Your task to perform on an android device: Open the Play Movies app and select the watchlist tab. Image 0: 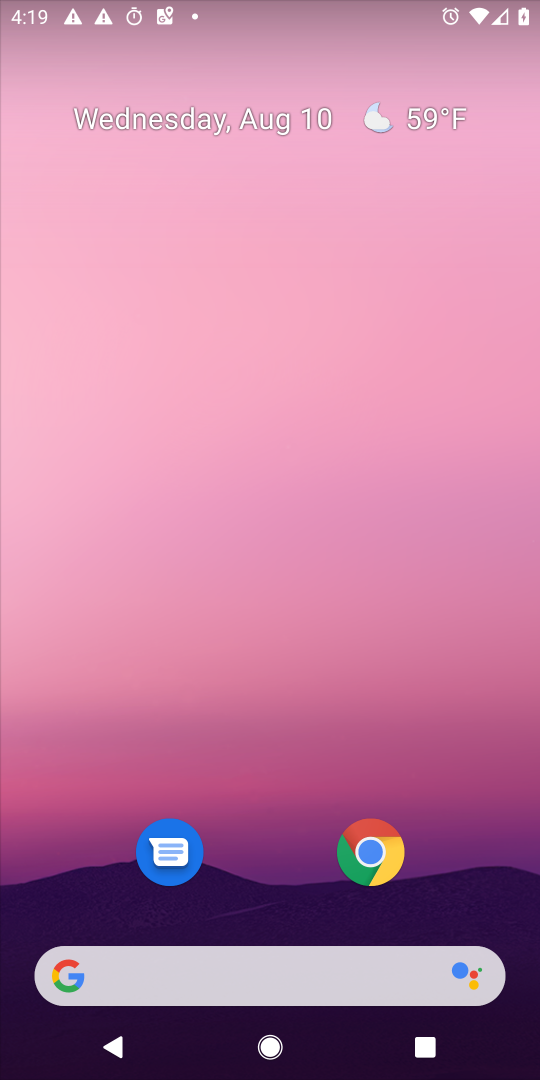
Step 0: click (271, 863)
Your task to perform on an android device: Open the Play Movies app and select the watchlist tab. Image 1: 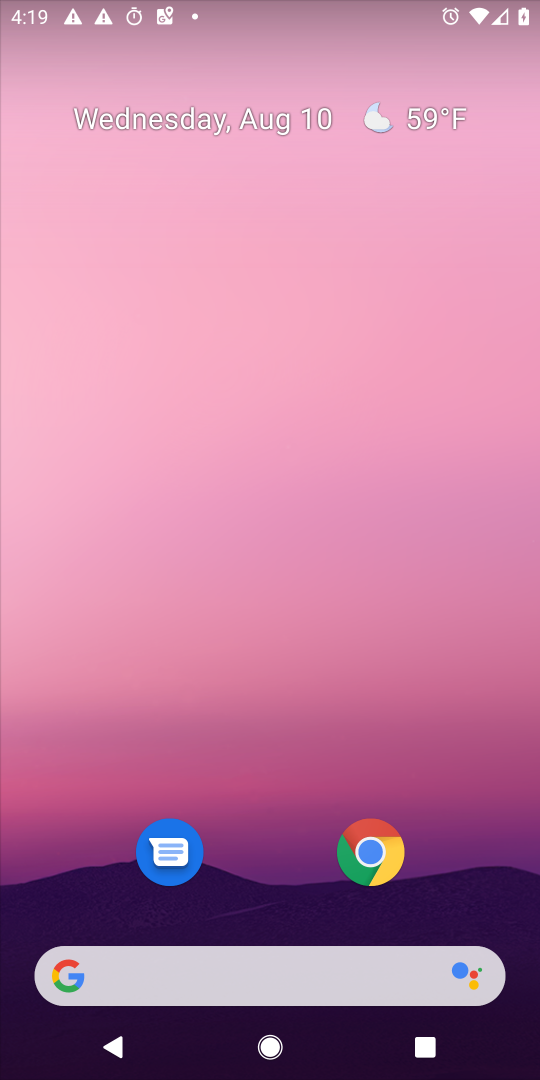
Step 1: drag from (291, 833) to (398, 131)
Your task to perform on an android device: Open the Play Movies app and select the watchlist tab. Image 2: 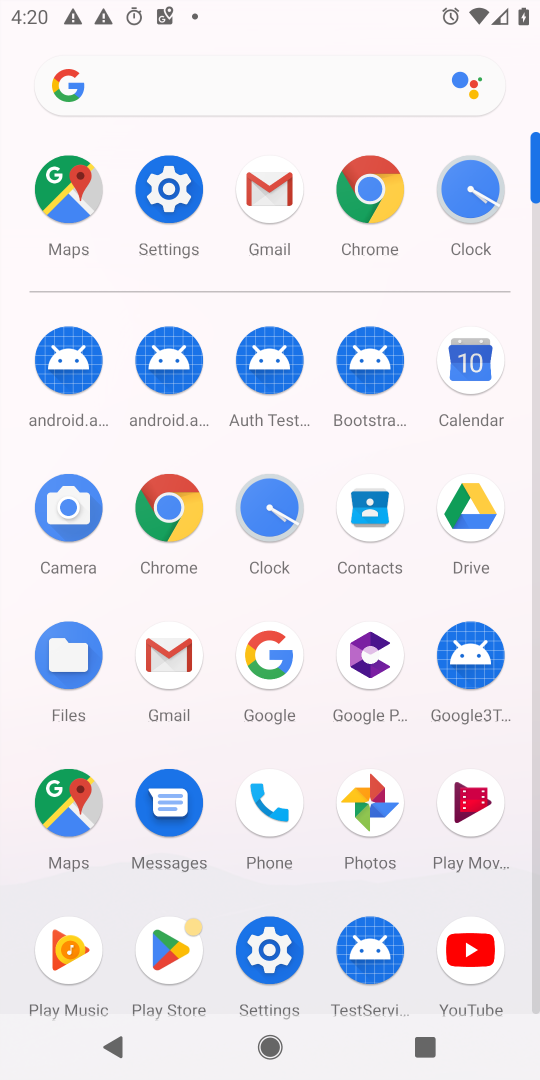
Step 2: click (456, 794)
Your task to perform on an android device: Open the Play Movies app and select the watchlist tab. Image 3: 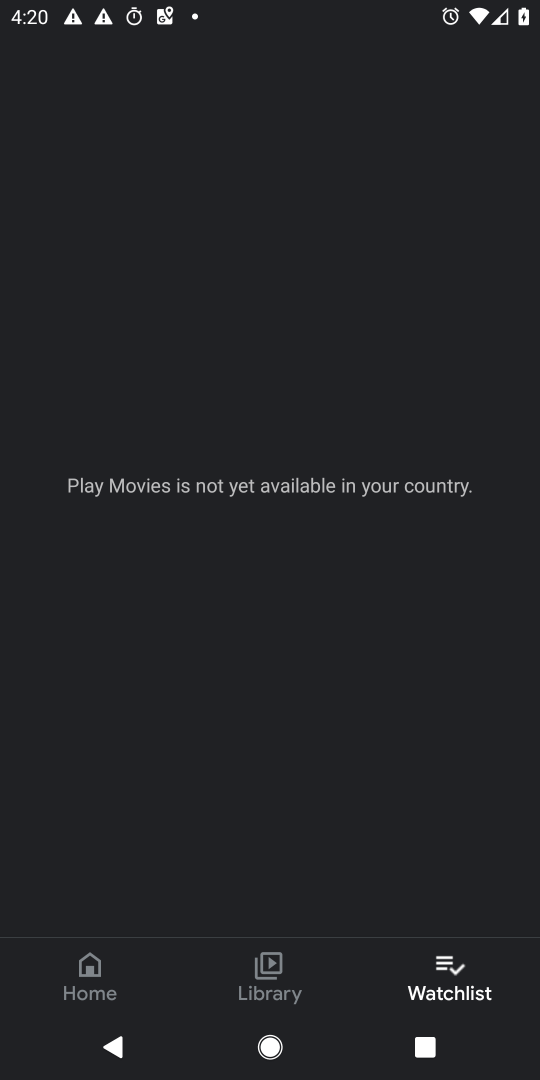
Step 3: task complete